Your task to perform on an android device: manage bookmarks in the chrome app Image 0: 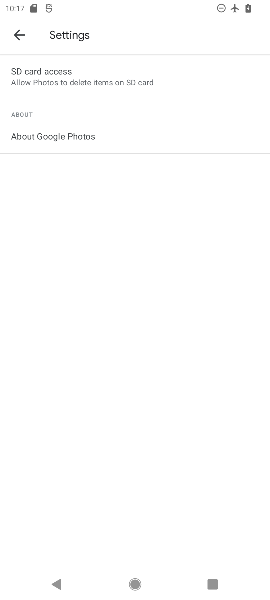
Step 0: press home button
Your task to perform on an android device: manage bookmarks in the chrome app Image 1: 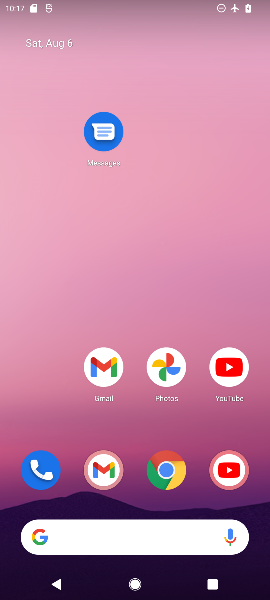
Step 1: click (171, 471)
Your task to perform on an android device: manage bookmarks in the chrome app Image 2: 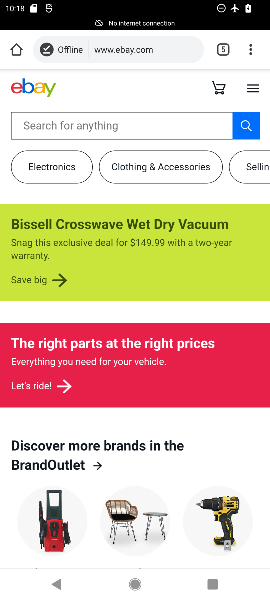
Step 2: click (256, 49)
Your task to perform on an android device: manage bookmarks in the chrome app Image 3: 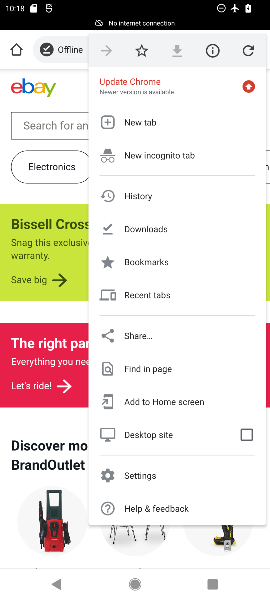
Step 3: click (167, 260)
Your task to perform on an android device: manage bookmarks in the chrome app Image 4: 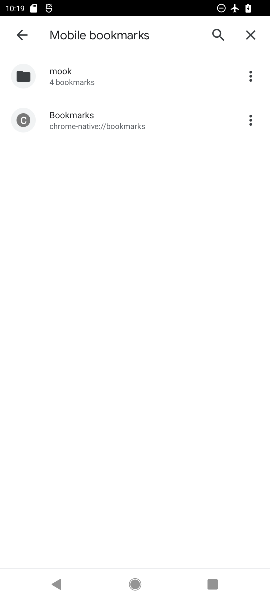
Step 4: task complete